Your task to perform on an android device: toggle show notifications on the lock screen Image 0: 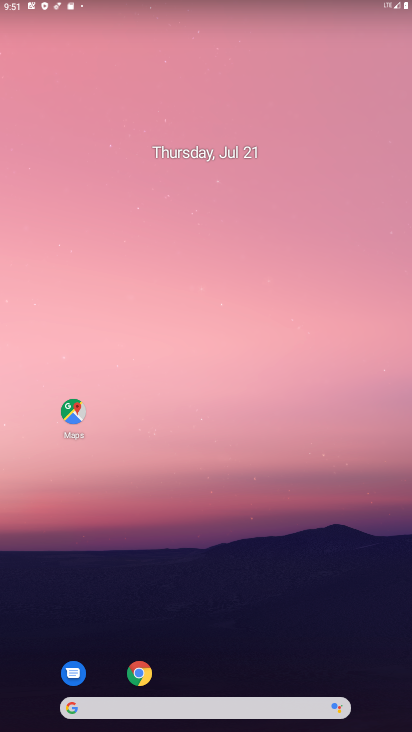
Step 0: drag from (205, 661) to (236, 250)
Your task to perform on an android device: toggle show notifications on the lock screen Image 1: 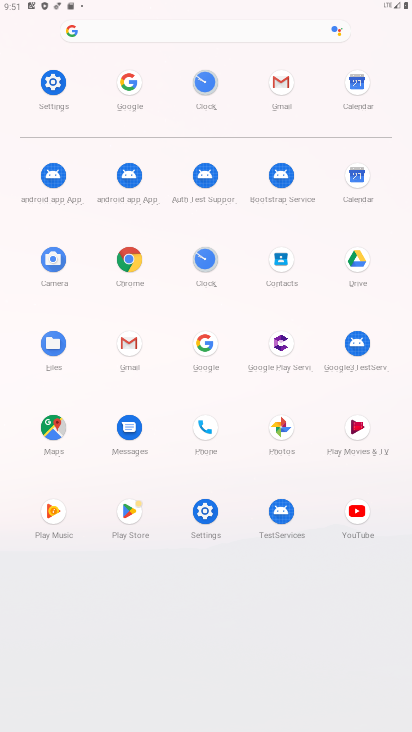
Step 1: click (61, 82)
Your task to perform on an android device: toggle show notifications on the lock screen Image 2: 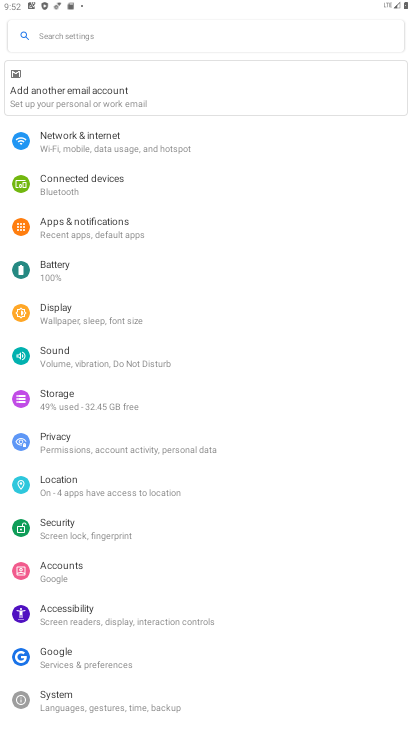
Step 2: click (93, 224)
Your task to perform on an android device: toggle show notifications on the lock screen Image 3: 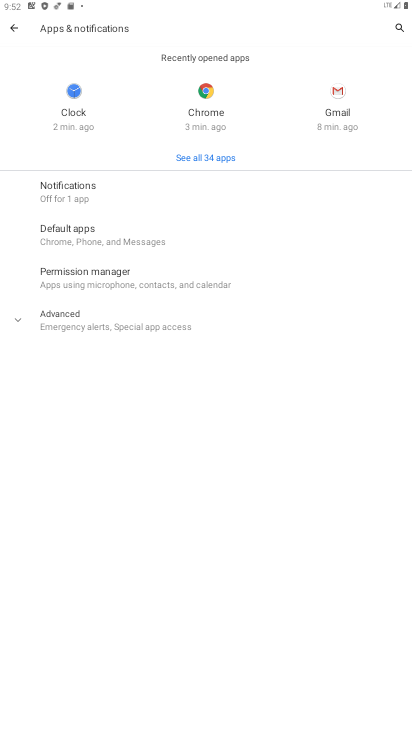
Step 3: click (95, 183)
Your task to perform on an android device: toggle show notifications on the lock screen Image 4: 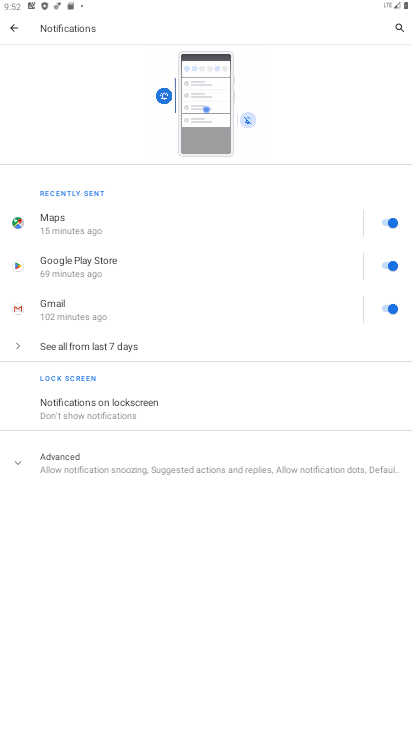
Step 4: click (200, 417)
Your task to perform on an android device: toggle show notifications on the lock screen Image 5: 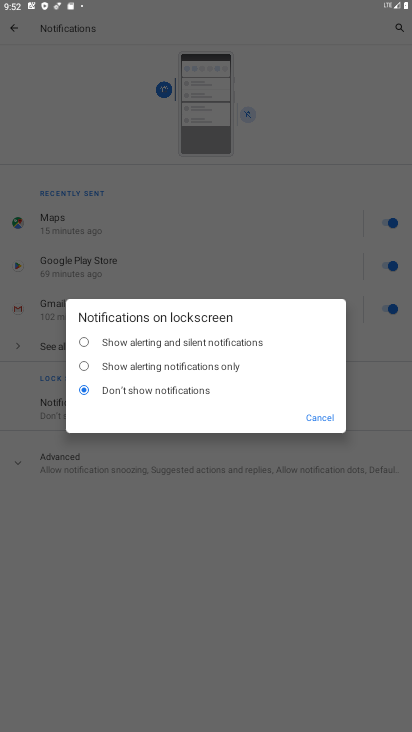
Step 5: click (163, 351)
Your task to perform on an android device: toggle show notifications on the lock screen Image 6: 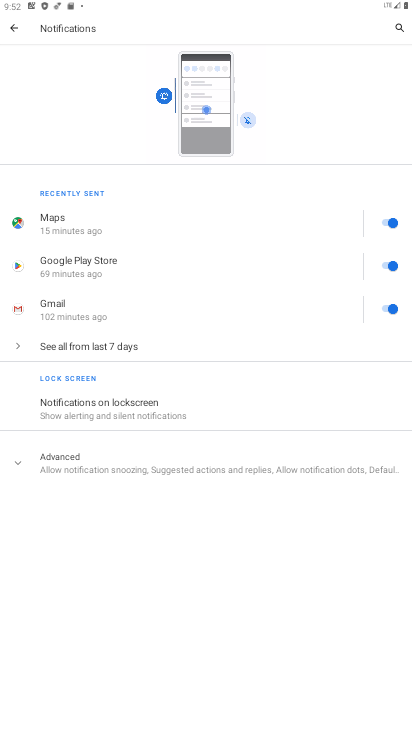
Step 6: task complete